Your task to perform on an android device: Go to wifi settings Image 0: 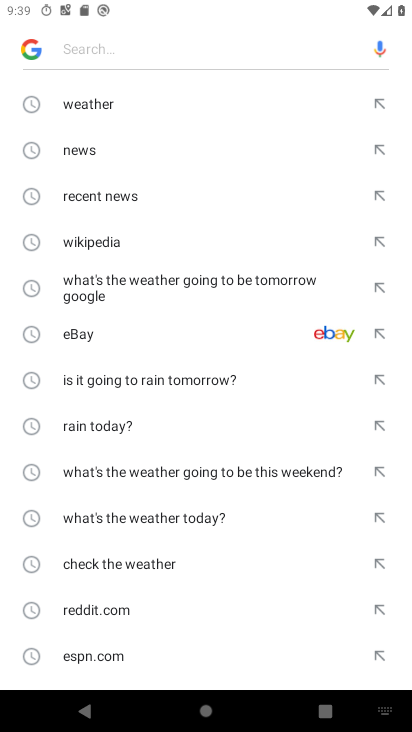
Step 0: press home button
Your task to perform on an android device: Go to wifi settings Image 1: 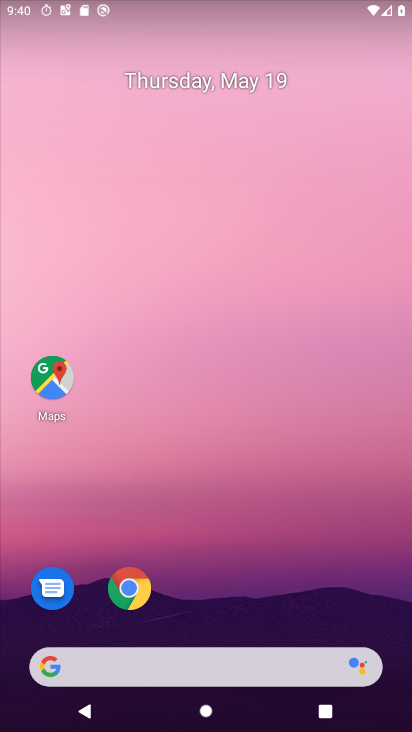
Step 1: drag from (152, 655) to (272, 227)
Your task to perform on an android device: Go to wifi settings Image 2: 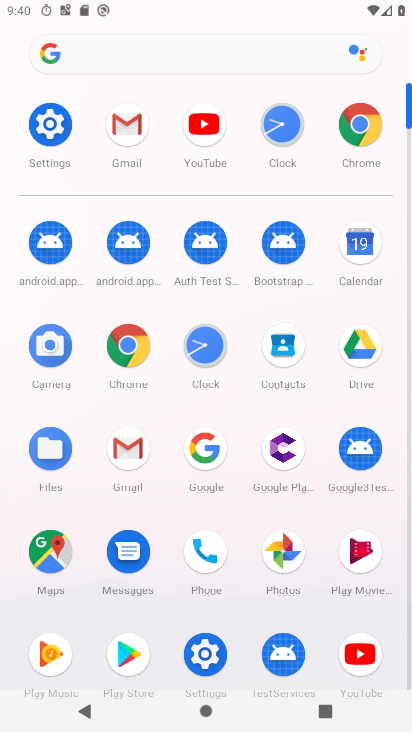
Step 2: click (55, 129)
Your task to perform on an android device: Go to wifi settings Image 3: 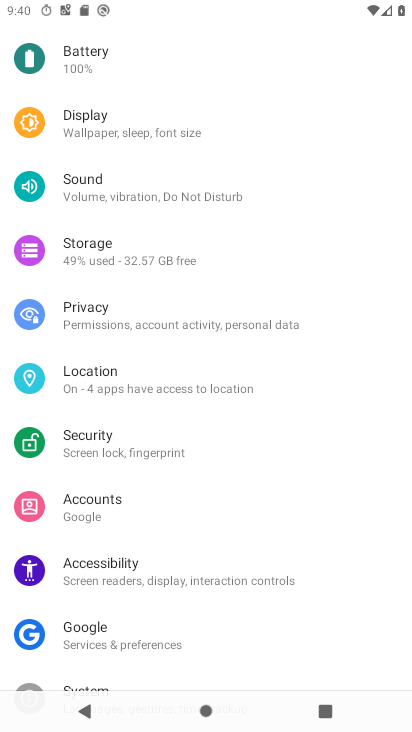
Step 3: drag from (266, 95) to (233, 513)
Your task to perform on an android device: Go to wifi settings Image 4: 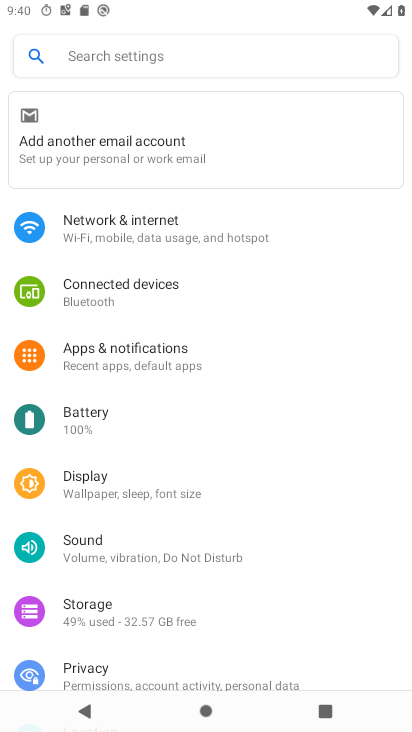
Step 4: click (169, 230)
Your task to perform on an android device: Go to wifi settings Image 5: 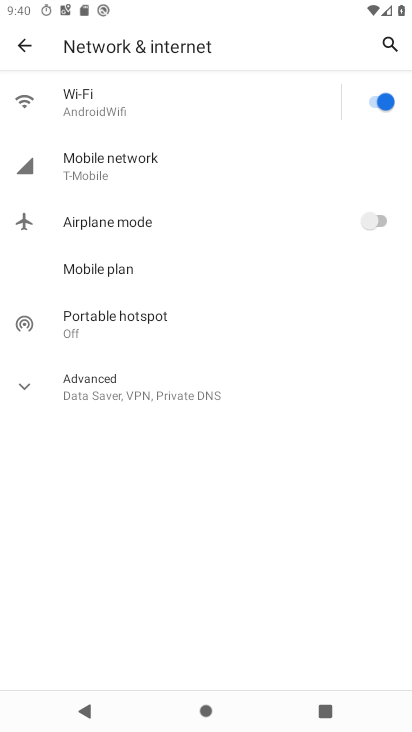
Step 5: click (111, 106)
Your task to perform on an android device: Go to wifi settings Image 6: 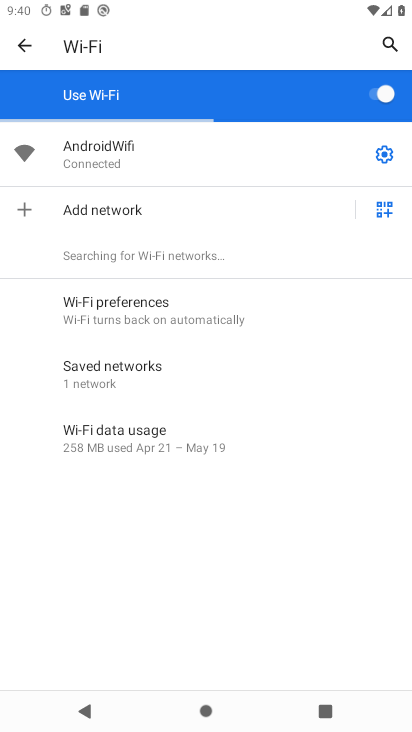
Step 6: task complete